Your task to perform on an android device: Open Youtube and go to the subscriptions tab Image 0: 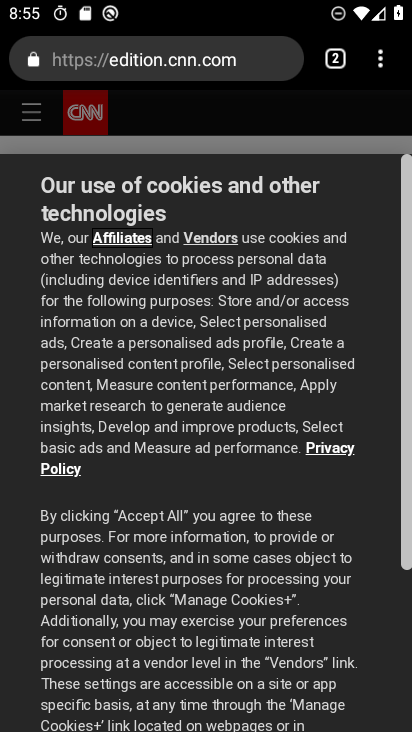
Step 0: press home button
Your task to perform on an android device: Open Youtube and go to the subscriptions tab Image 1: 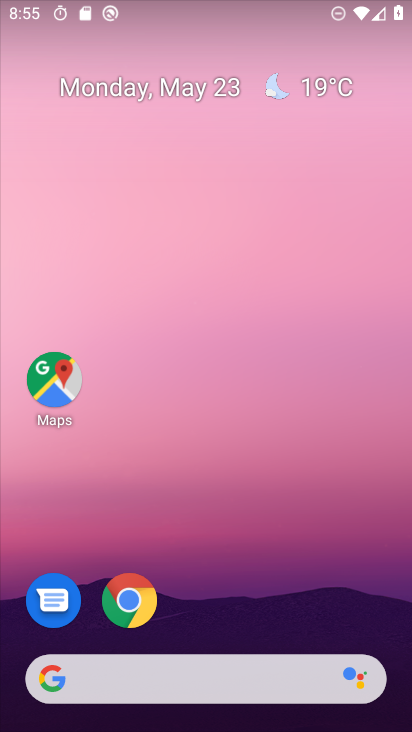
Step 1: drag from (43, 548) to (251, 79)
Your task to perform on an android device: Open Youtube and go to the subscriptions tab Image 2: 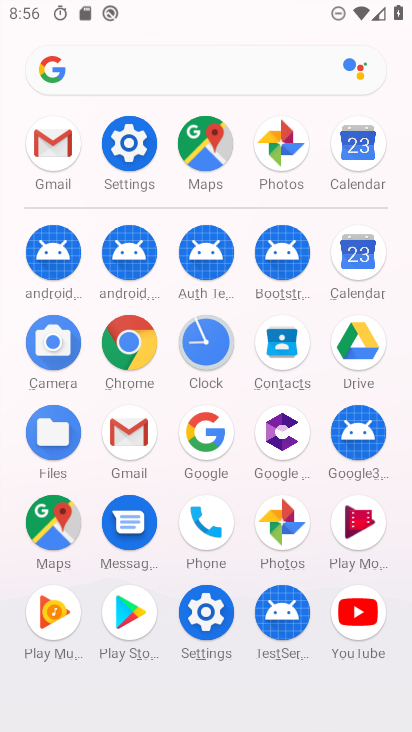
Step 2: click (355, 620)
Your task to perform on an android device: Open Youtube and go to the subscriptions tab Image 3: 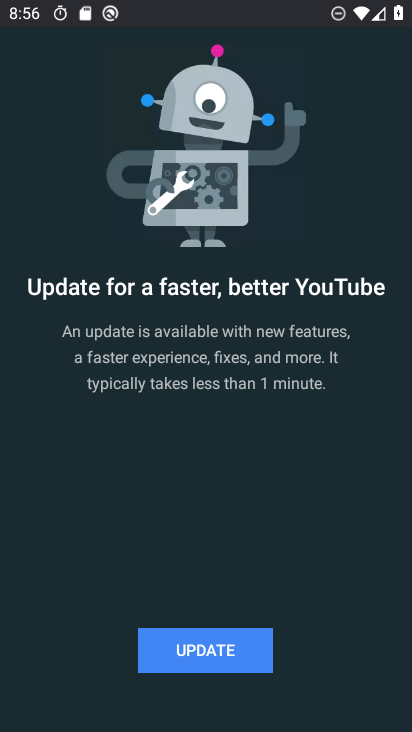
Step 3: press home button
Your task to perform on an android device: Open Youtube and go to the subscriptions tab Image 4: 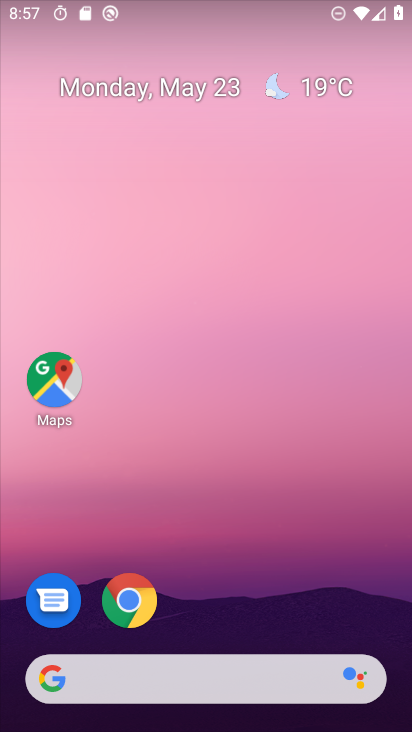
Step 4: drag from (50, 549) to (252, 108)
Your task to perform on an android device: Open Youtube and go to the subscriptions tab Image 5: 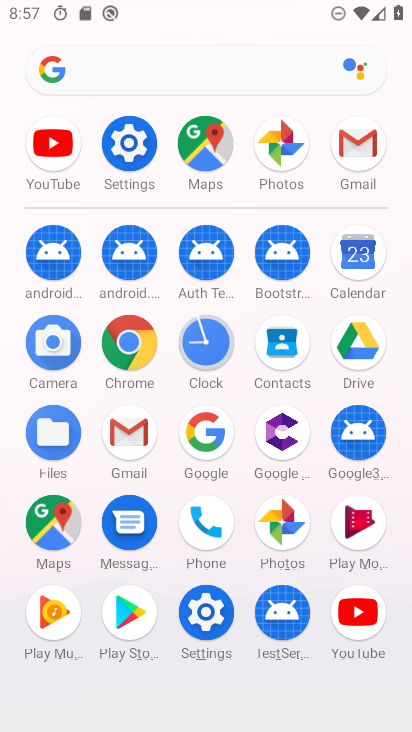
Step 5: click (348, 611)
Your task to perform on an android device: Open Youtube and go to the subscriptions tab Image 6: 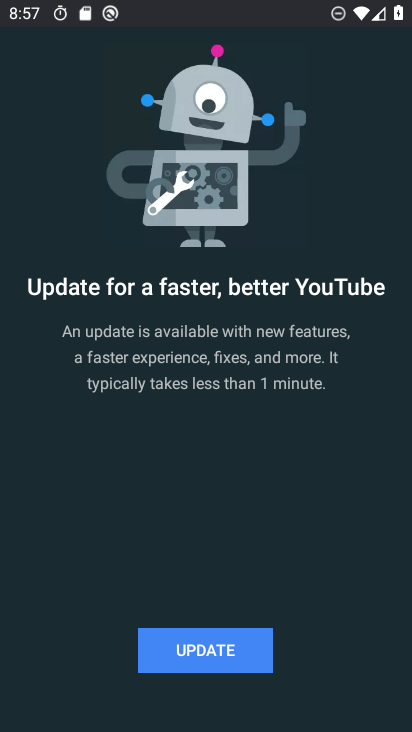
Step 6: task complete